Your task to perform on an android device: Add dell xps to the cart on amazon Image 0: 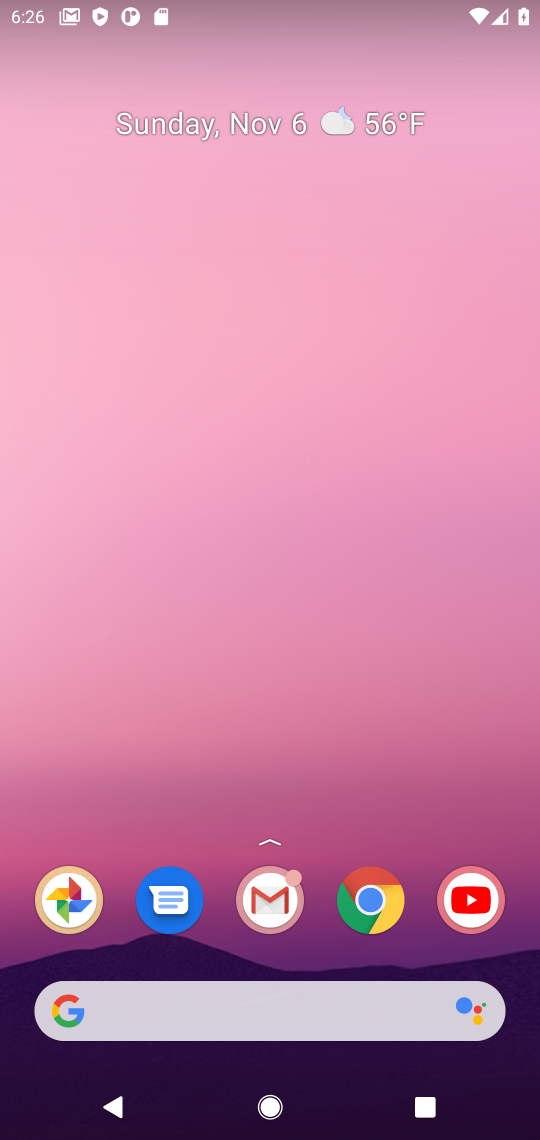
Step 0: drag from (334, 828) to (400, 133)
Your task to perform on an android device: Add dell xps to the cart on amazon Image 1: 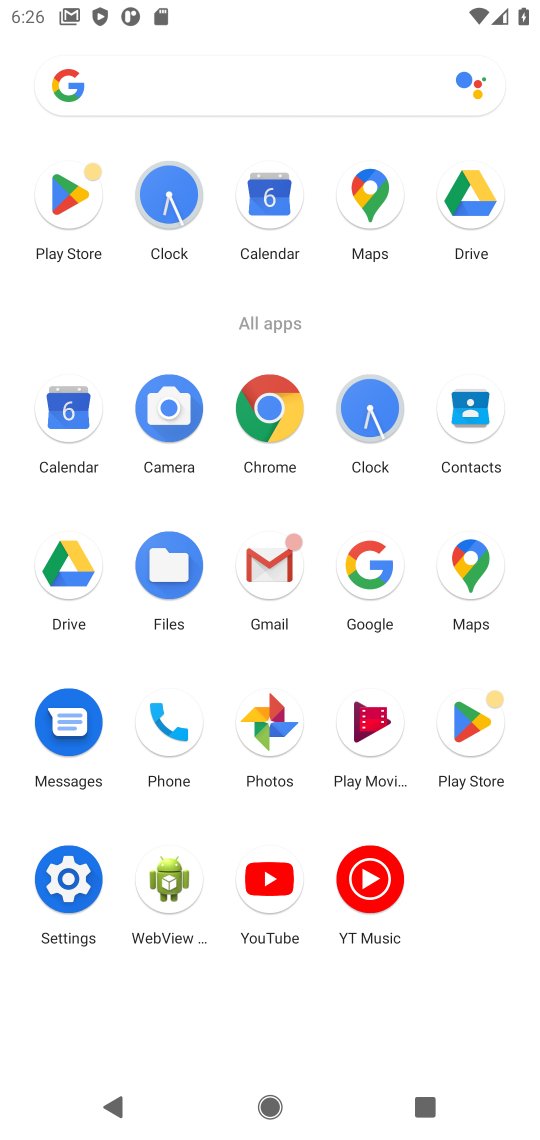
Step 1: click (273, 406)
Your task to perform on an android device: Add dell xps to the cart on amazon Image 2: 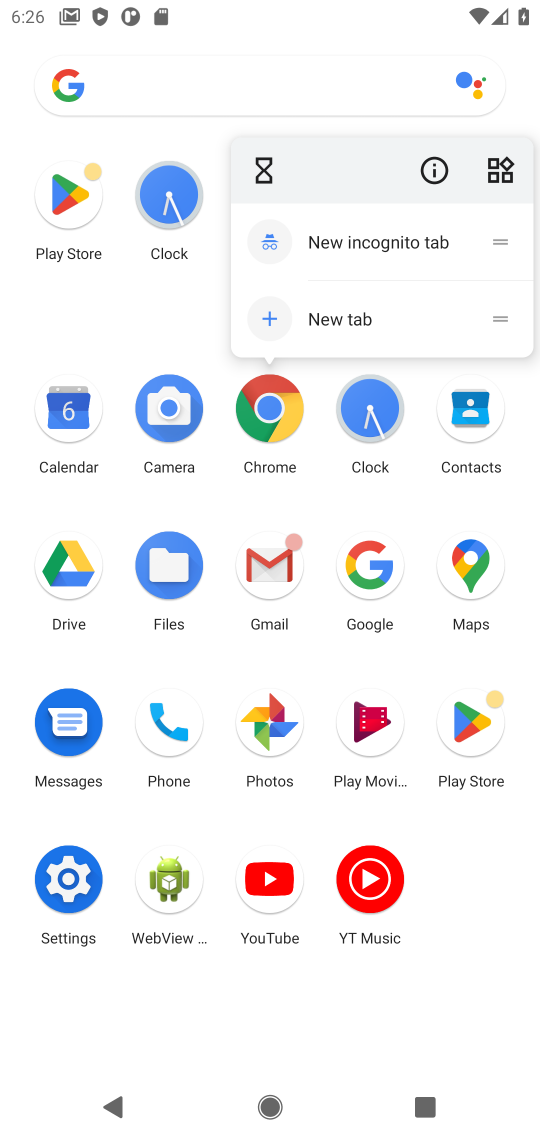
Step 2: click (272, 413)
Your task to perform on an android device: Add dell xps to the cart on amazon Image 3: 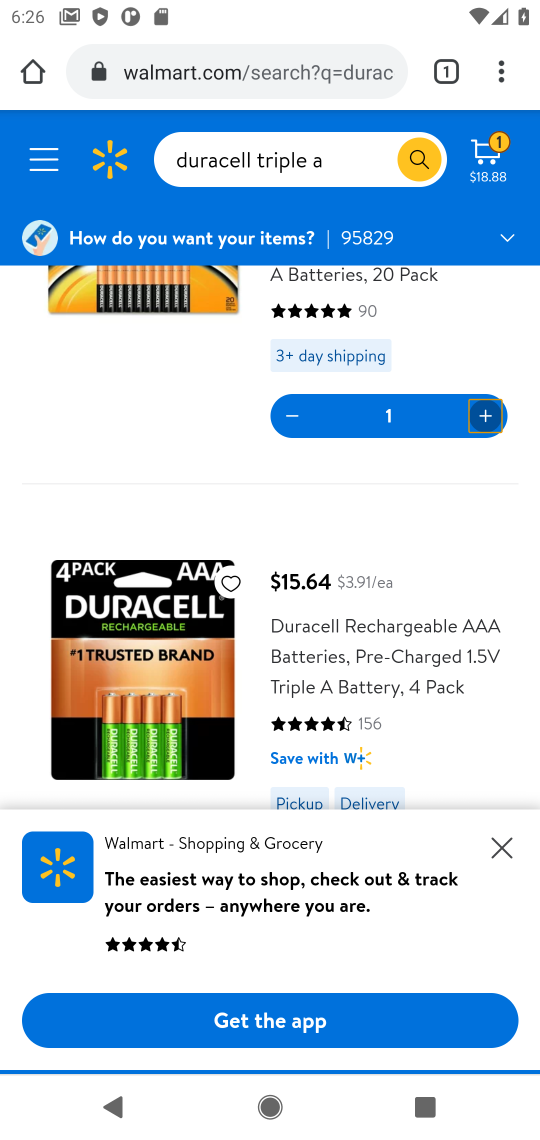
Step 3: click (256, 78)
Your task to perform on an android device: Add dell xps to the cart on amazon Image 4: 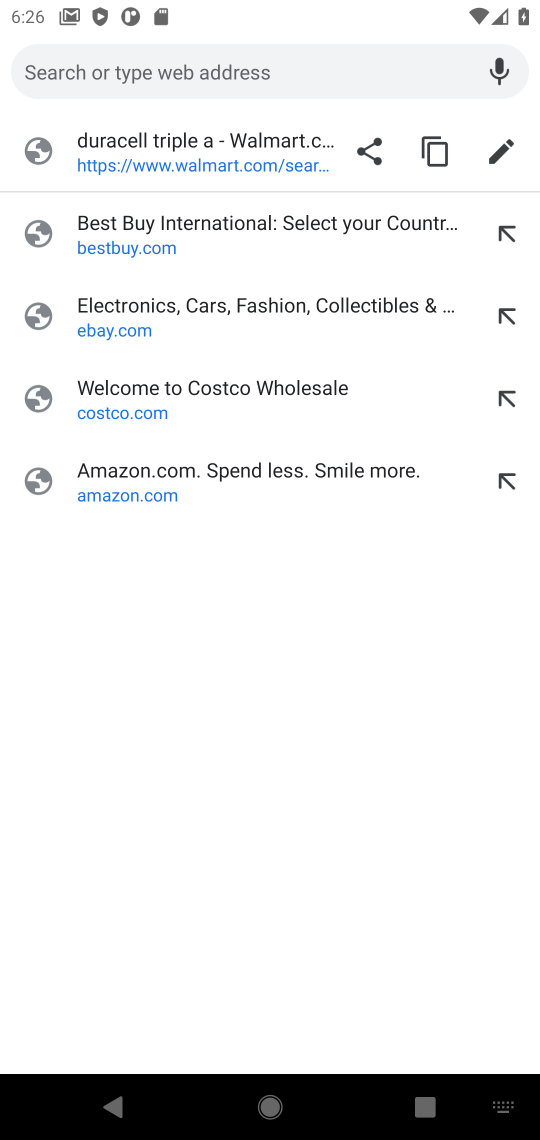
Step 4: type "amazon.com"
Your task to perform on an android device: Add dell xps to the cart on amazon Image 5: 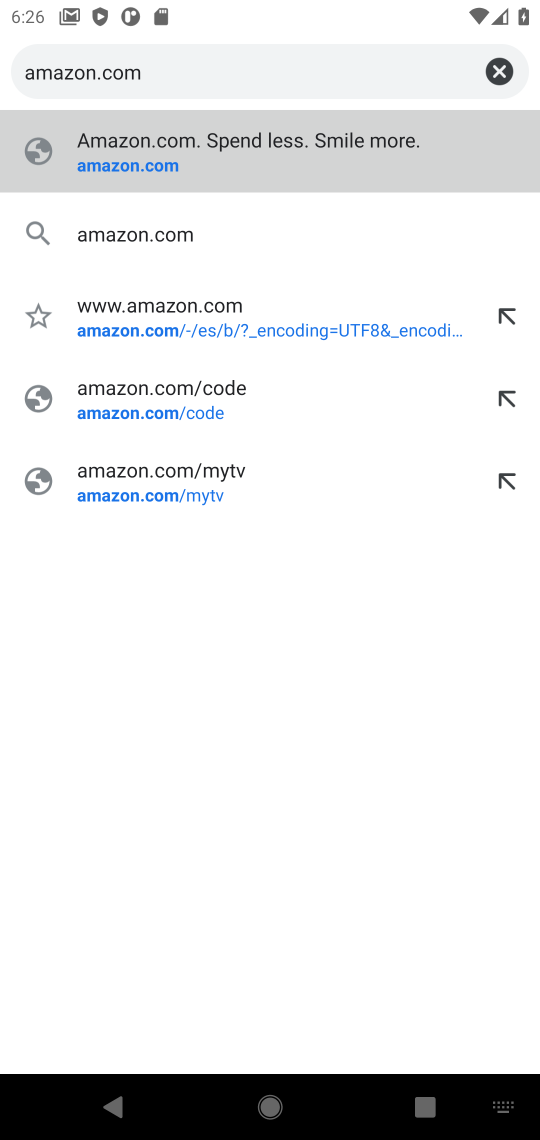
Step 5: press enter
Your task to perform on an android device: Add dell xps to the cart on amazon Image 6: 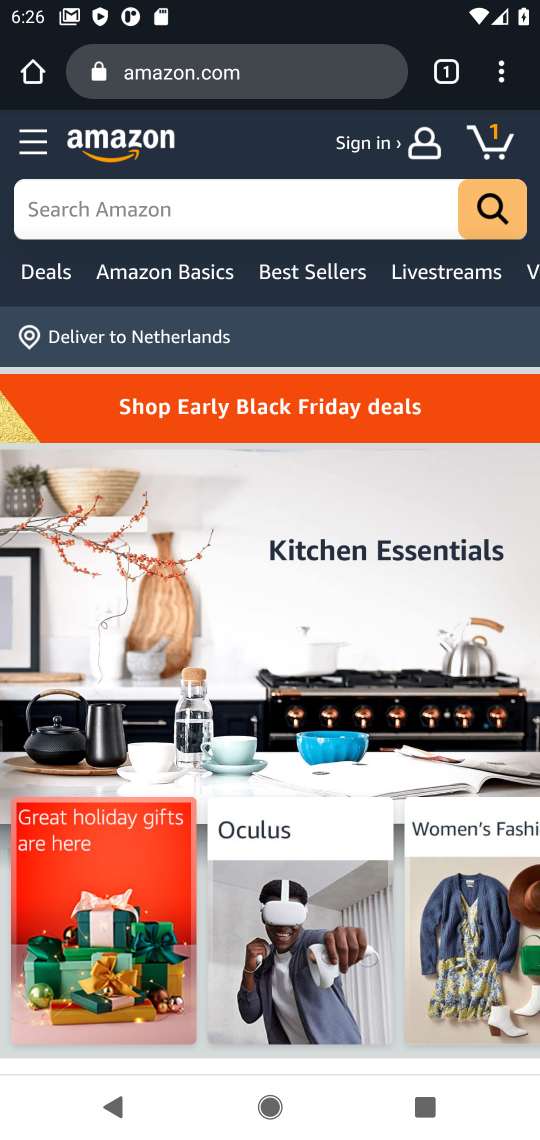
Step 6: click (245, 211)
Your task to perform on an android device: Add dell xps to the cart on amazon Image 7: 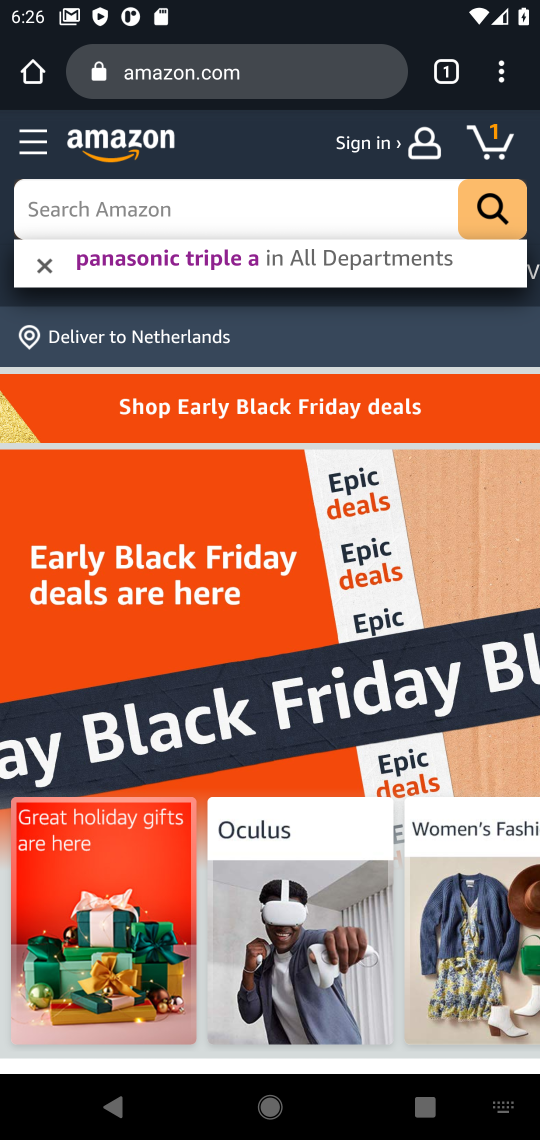
Step 7: type "dell xps"
Your task to perform on an android device: Add dell xps to the cart on amazon Image 8: 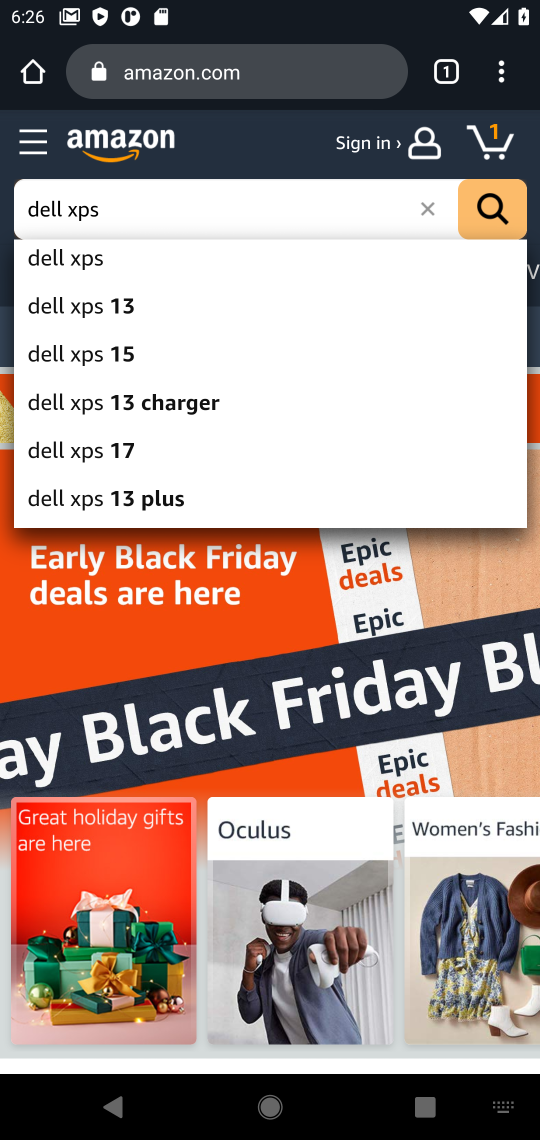
Step 8: press enter
Your task to perform on an android device: Add dell xps to the cart on amazon Image 9: 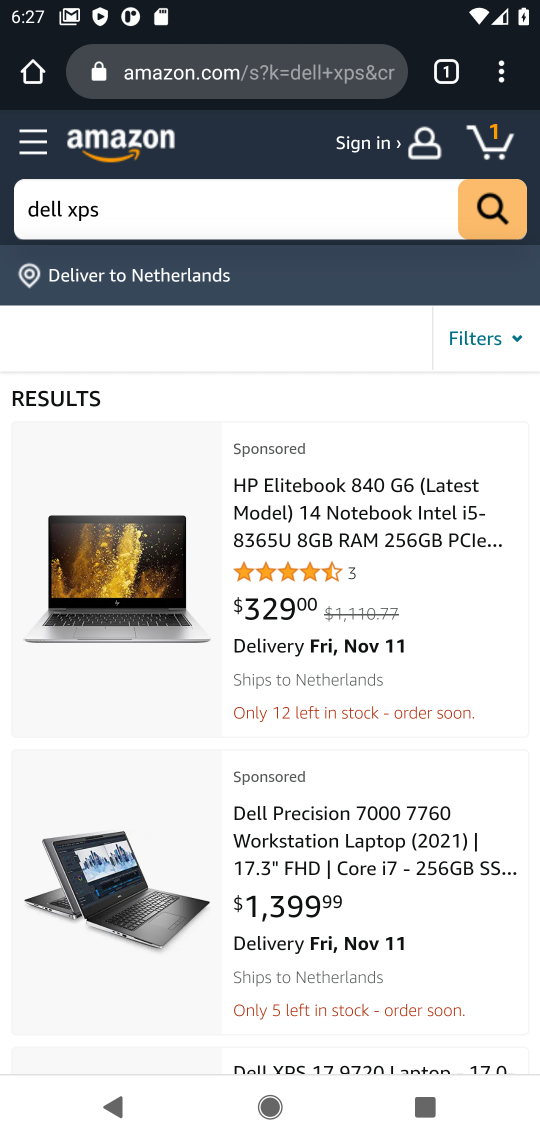
Step 9: drag from (204, 965) to (152, 224)
Your task to perform on an android device: Add dell xps to the cart on amazon Image 10: 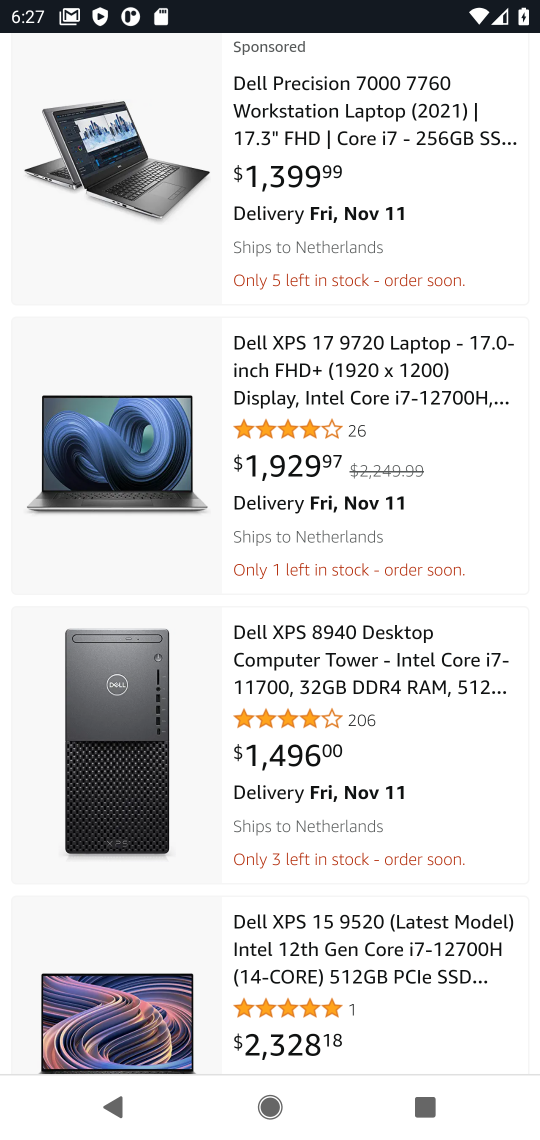
Step 10: click (294, 381)
Your task to perform on an android device: Add dell xps to the cart on amazon Image 11: 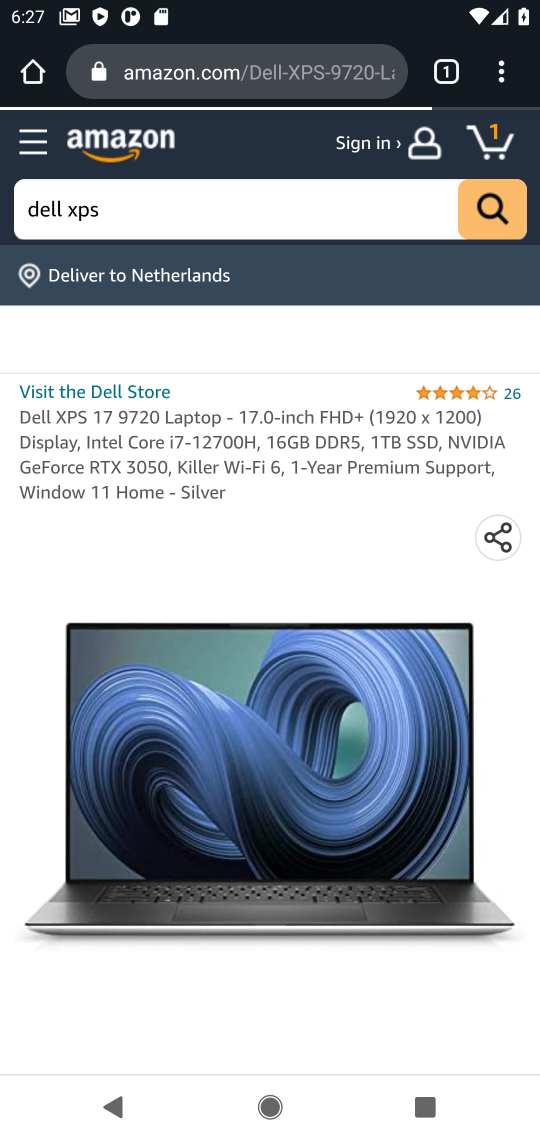
Step 11: click (261, 370)
Your task to perform on an android device: Add dell xps to the cart on amazon Image 12: 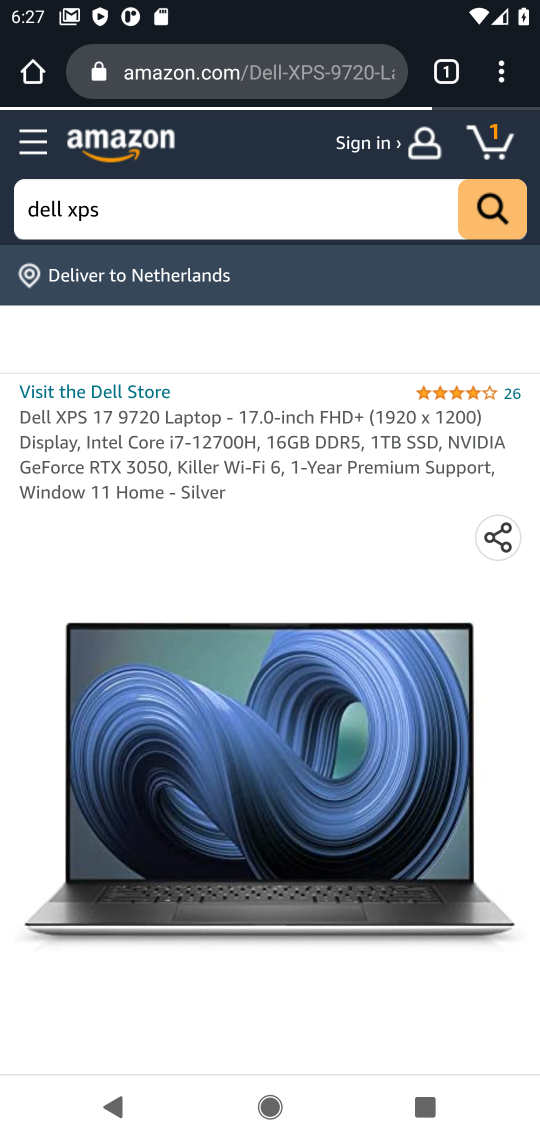
Step 12: drag from (294, 793) to (153, 84)
Your task to perform on an android device: Add dell xps to the cart on amazon Image 13: 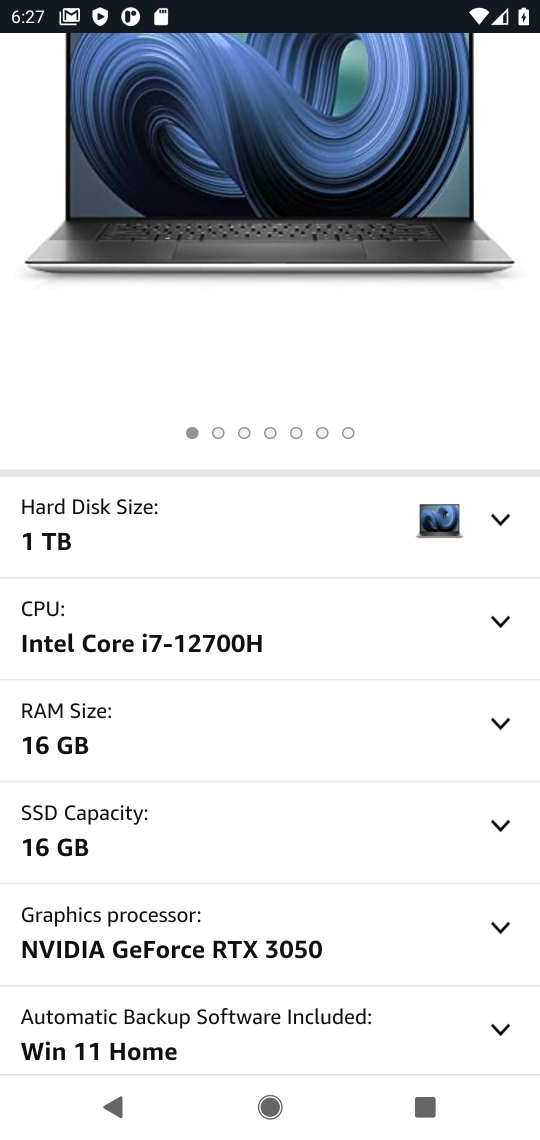
Step 13: drag from (248, 913) to (234, 177)
Your task to perform on an android device: Add dell xps to the cart on amazon Image 14: 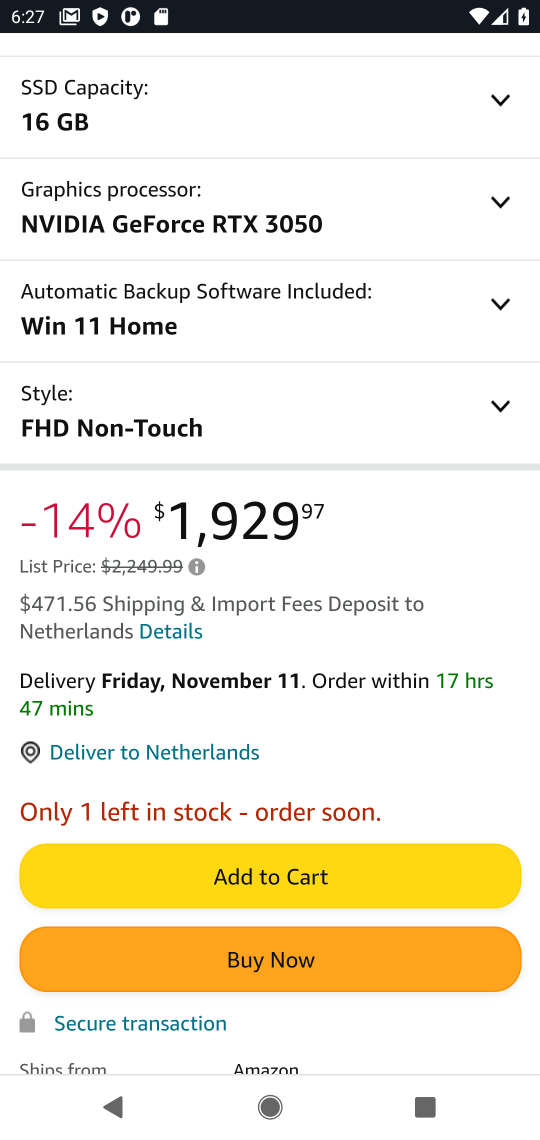
Step 14: click (337, 864)
Your task to perform on an android device: Add dell xps to the cart on amazon Image 15: 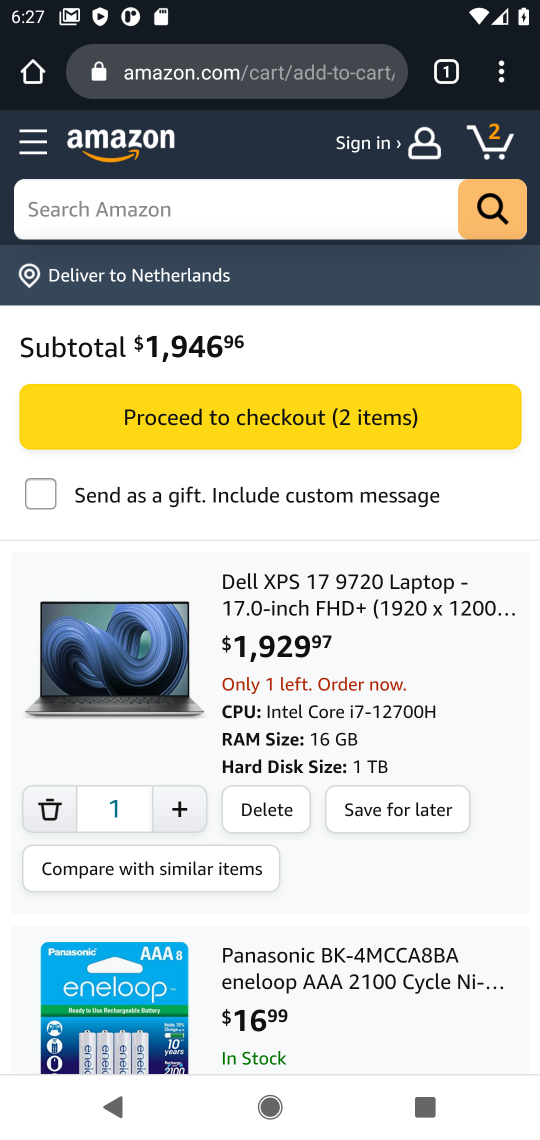
Step 15: task complete